Your task to perform on an android device: Is it going to rain today? Image 0: 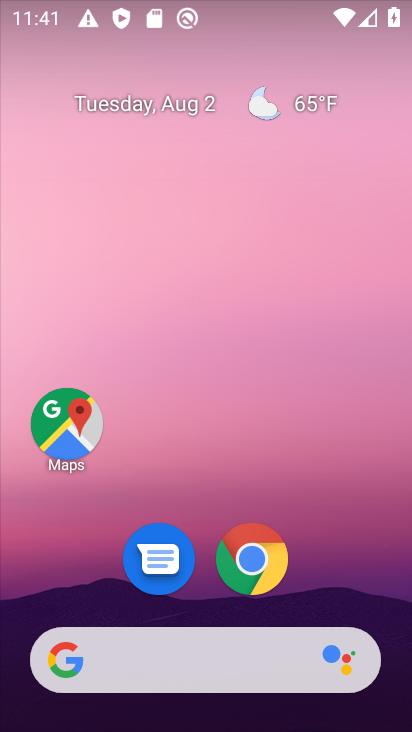
Step 0: drag from (202, 619) to (202, 32)
Your task to perform on an android device: Is it going to rain today? Image 1: 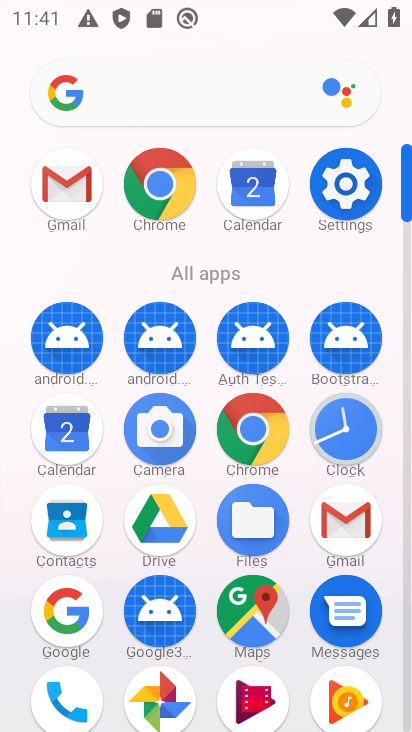
Step 1: click (66, 613)
Your task to perform on an android device: Is it going to rain today? Image 2: 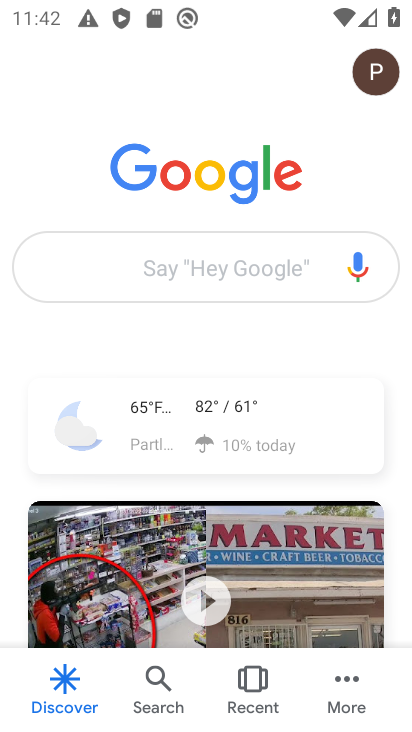
Step 2: click (169, 410)
Your task to perform on an android device: Is it going to rain today? Image 3: 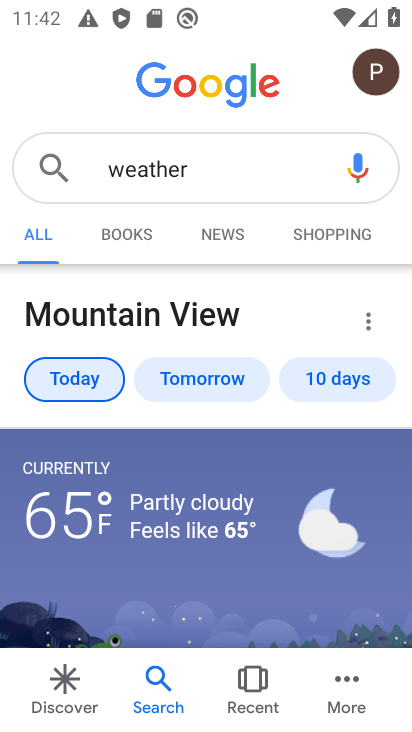
Step 3: click (63, 382)
Your task to perform on an android device: Is it going to rain today? Image 4: 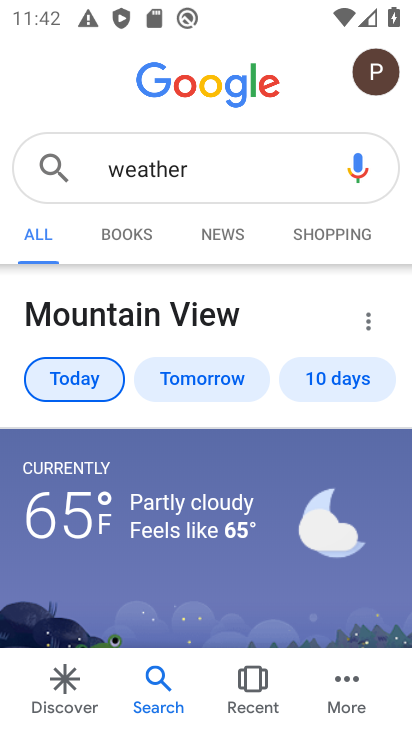
Step 4: click (63, 383)
Your task to perform on an android device: Is it going to rain today? Image 5: 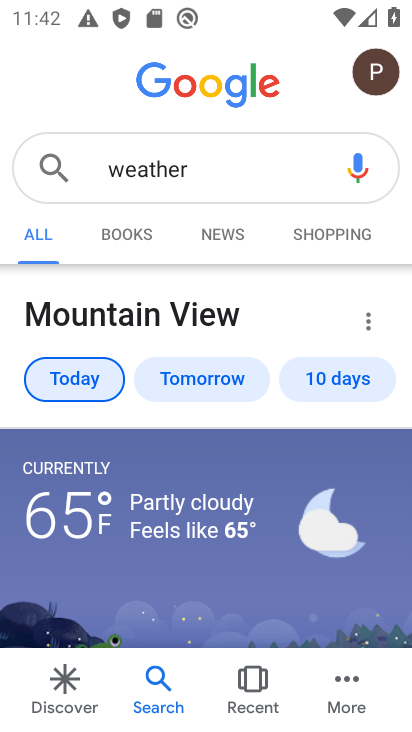
Step 5: click (75, 378)
Your task to perform on an android device: Is it going to rain today? Image 6: 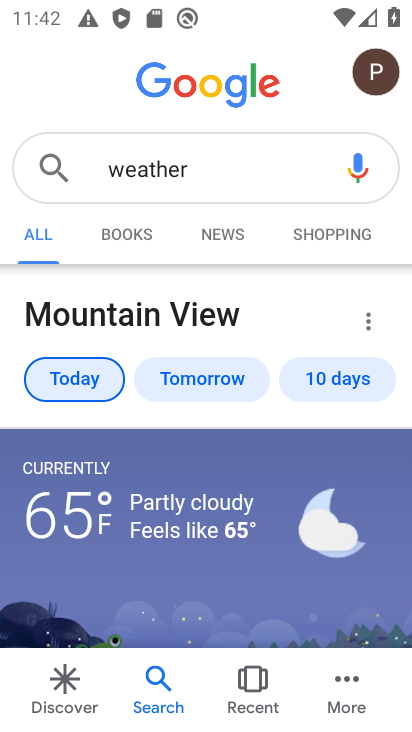
Step 6: task complete